Your task to perform on an android device: Show me the alarms in the clock app Image 0: 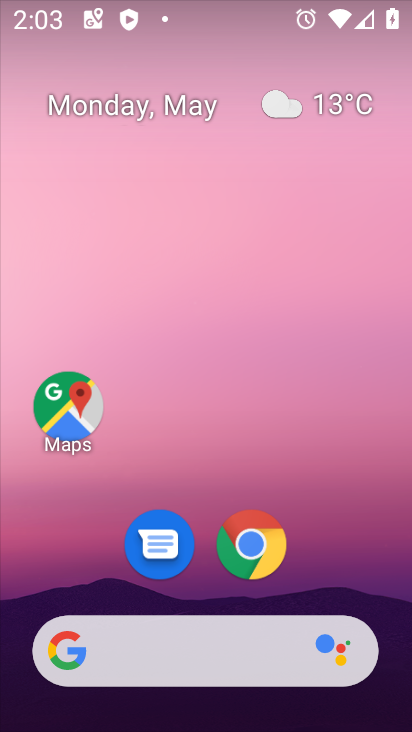
Step 0: drag from (396, 628) to (348, 9)
Your task to perform on an android device: Show me the alarms in the clock app Image 1: 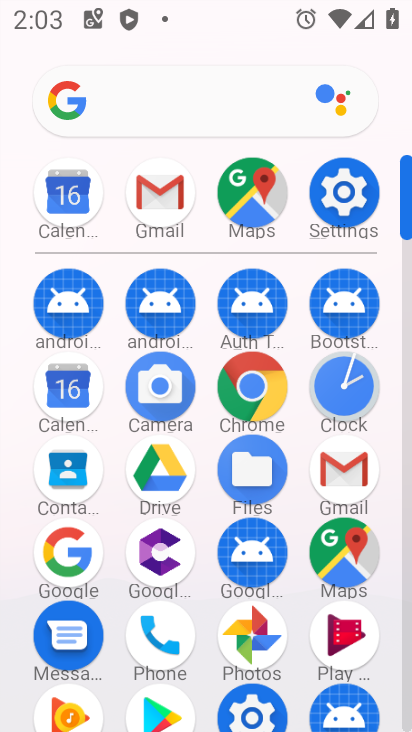
Step 1: click (345, 388)
Your task to perform on an android device: Show me the alarms in the clock app Image 2: 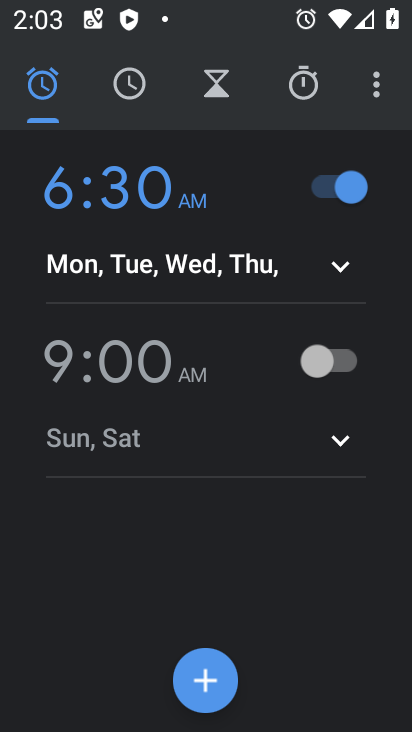
Step 2: task complete